Your task to perform on an android device: open app "Google Chrome" Image 0: 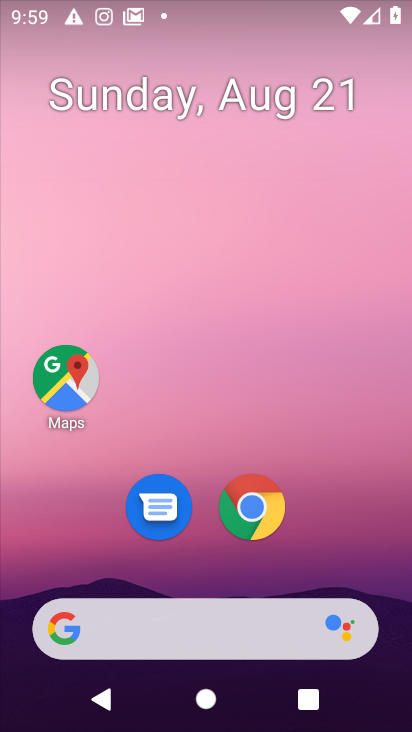
Step 0: click (250, 516)
Your task to perform on an android device: open app "Google Chrome" Image 1: 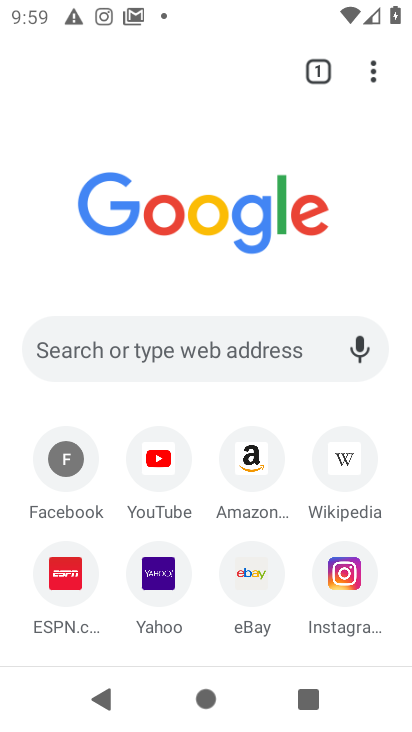
Step 1: task complete